Your task to perform on an android device: When is my next appointment? Image 0: 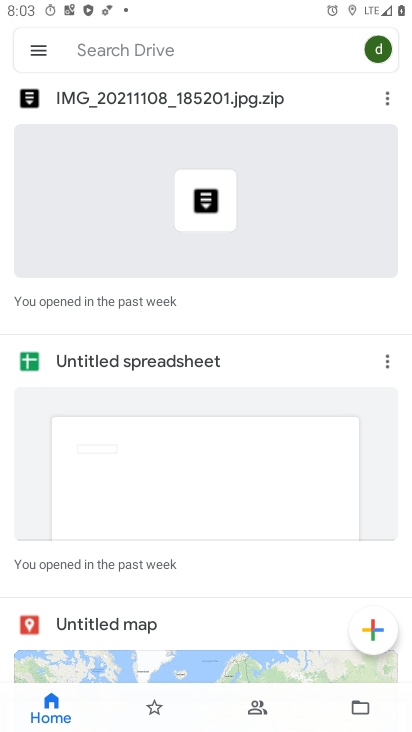
Step 0: press home button
Your task to perform on an android device: When is my next appointment? Image 1: 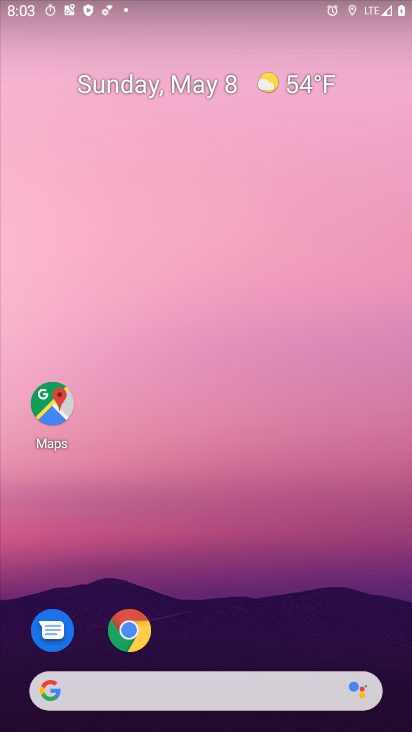
Step 1: drag from (212, 666) to (144, 719)
Your task to perform on an android device: When is my next appointment? Image 2: 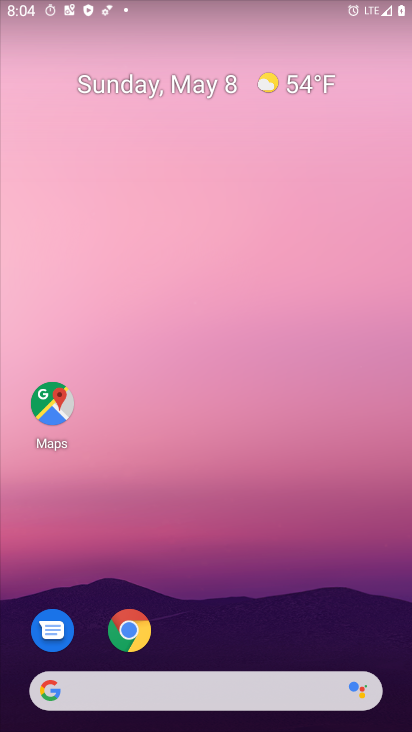
Step 2: drag from (222, 662) to (378, 16)
Your task to perform on an android device: When is my next appointment? Image 3: 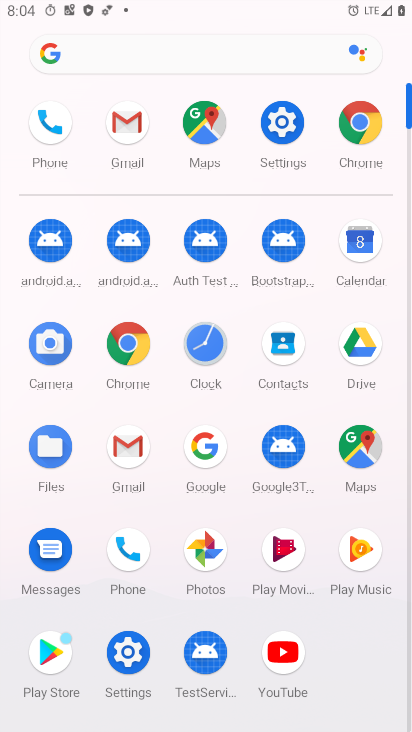
Step 3: click (365, 244)
Your task to perform on an android device: When is my next appointment? Image 4: 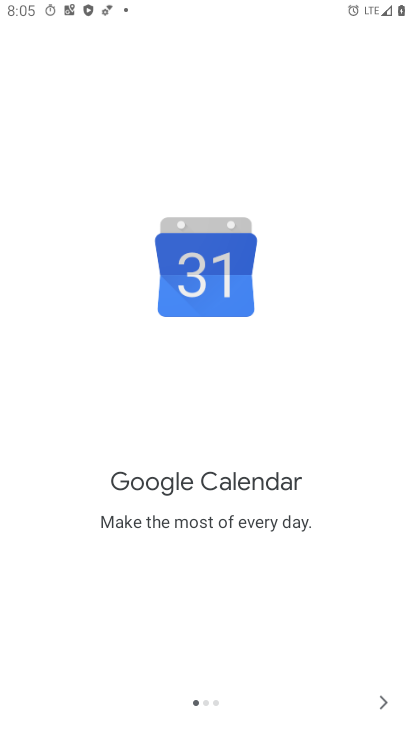
Step 4: click (388, 689)
Your task to perform on an android device: When is my next appointment? Image 5: 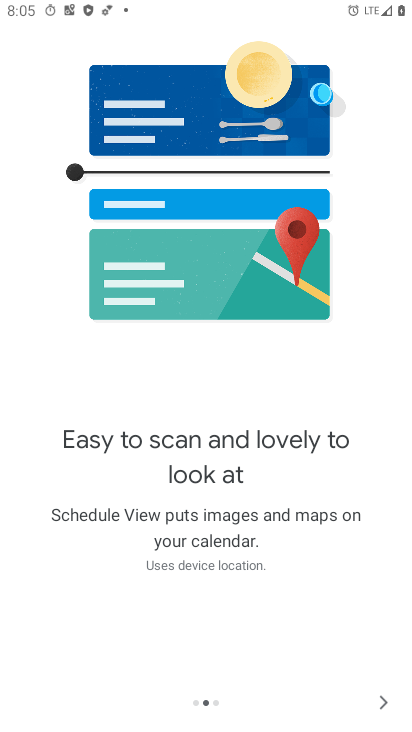
Step 5: click (371, 713)
Your task to perform on an android device: When is my next appointment? Image 6: 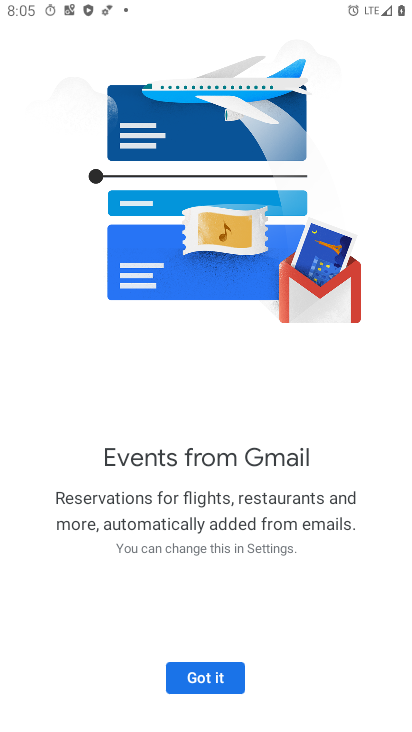
Step 6: click (224, 673)
Your task to perform on an android device: When is my next appointment? Image 7: 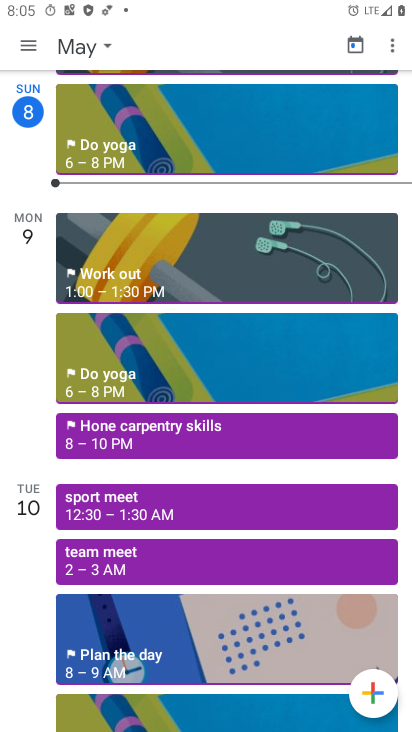
Step 7: click (25, 34)
Your task to perform on an android device: When is my next appointment? Image 8: 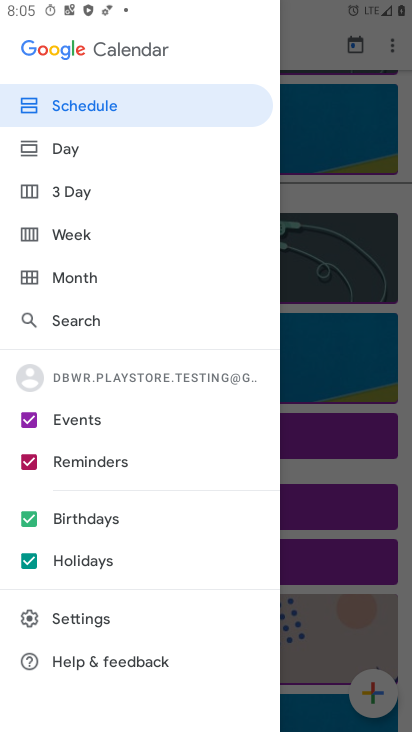
Step 8: click (67, 235)
Your task to perform on an android device: When is my next appointment? Image 9: 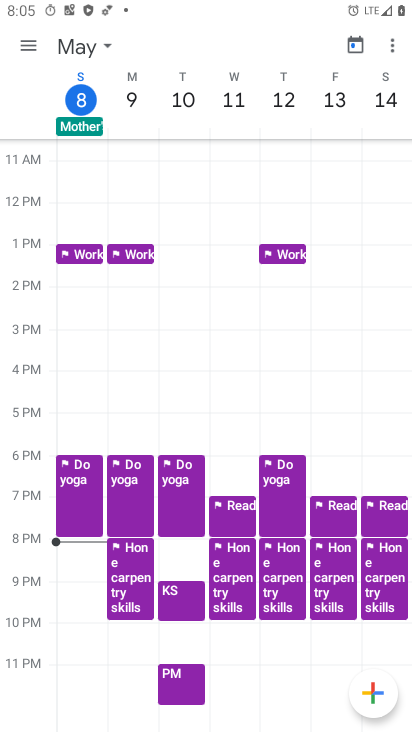
Step 9: task complete